Your task to perform on an android device: Turn off the flashlight Image 0: 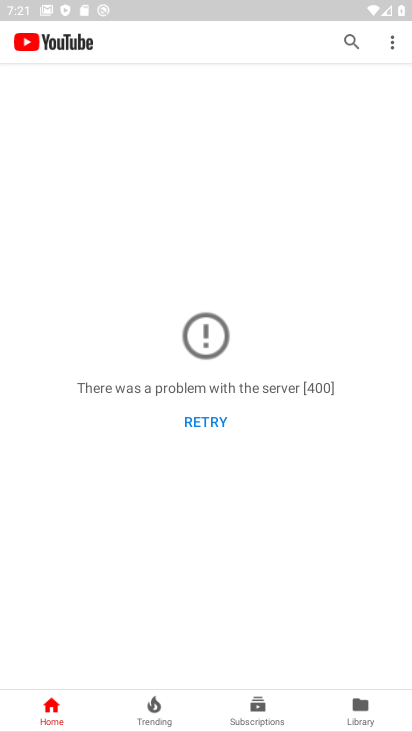
Step 0: drag from (247, 1) to (214, 491)
Your task to perform on an android device: Turn off the flashlight Image 1: 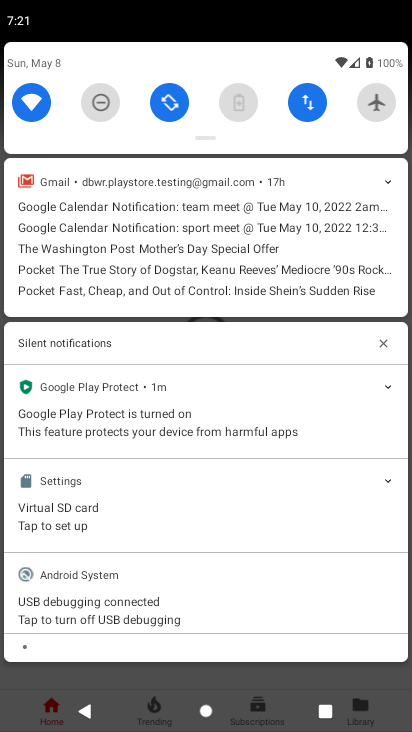
Step 1: drag from (210, 120) to (197, 572)
Your task to perform on an android device: Turn off the flashlight Image 2: 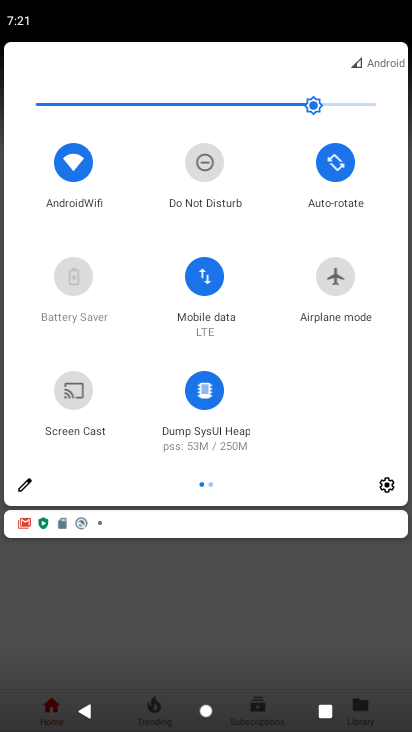
Step 2: drag from (343, 441) to (2, 339)
Your task to perform on an android device: Turn off the flashlight Image 3: 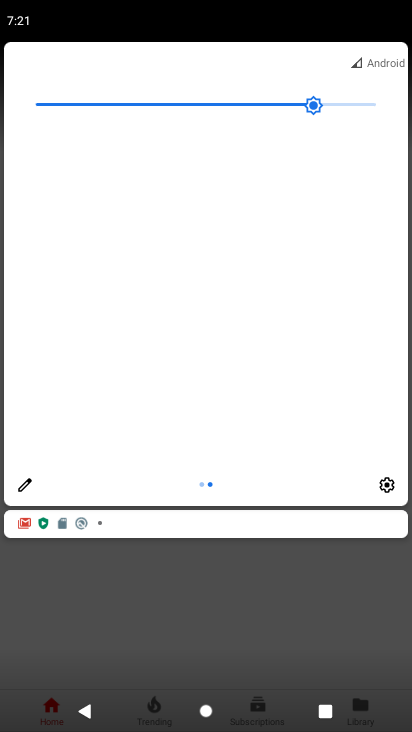
Step 3: click (22, 482)
Your task to perform on an android device: Turn off the flashlight Image 4: 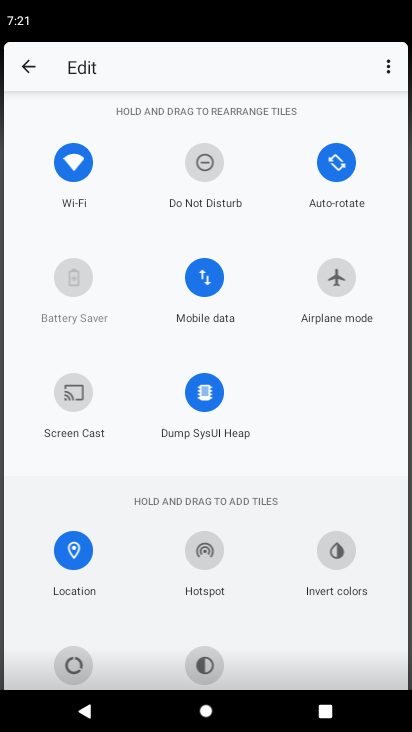
Step 4: task complete